Your task to perform on an android device: Open Chrome and go to the settings page Image 0: 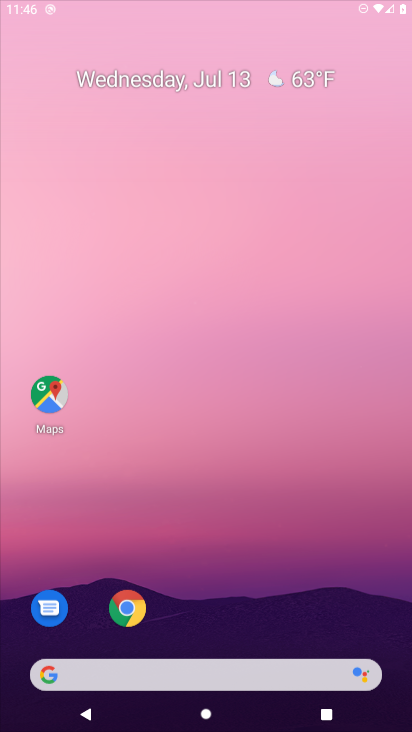
Step 0: press home button
Your task to perform on an android device: Open Chrome and go to the settings page Image 1: 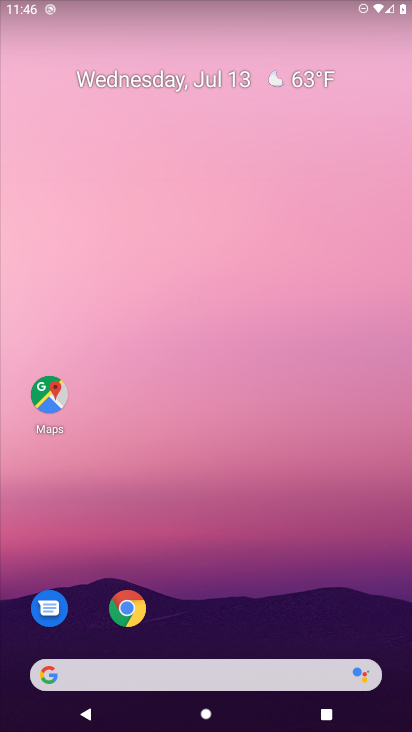
Step 1: drag from (214, 632) to (190, 101)
Your task to perform on an android device: Open Chrome and go to the settings page Image 2: 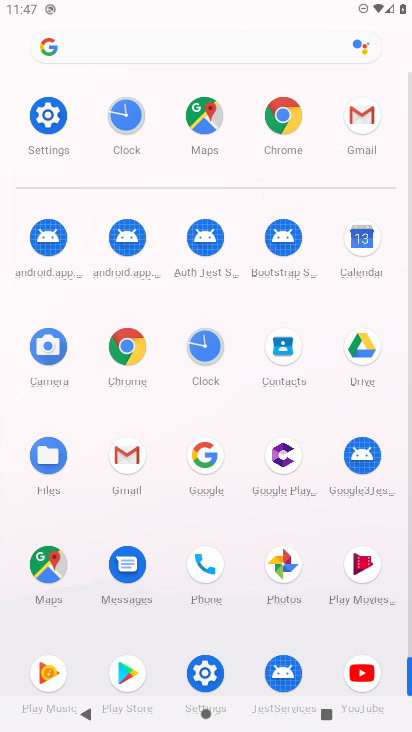
Step 2: click (279, 126)
Your task to perform on an android device: Open Chrome and go to the settings page Image 3: 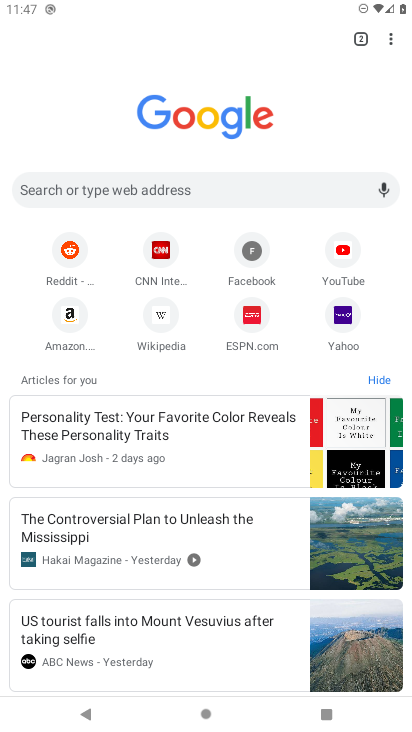
Step 3: task complete